Your task to perform on an android device: Check the weather Image 0: 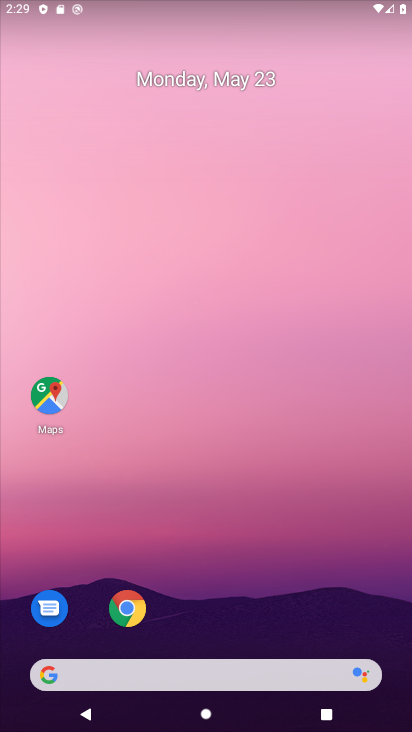
Step 0: drag from (249, 618) to (284, 316)
Your task to perform on an android device: Check the weather Image 1: 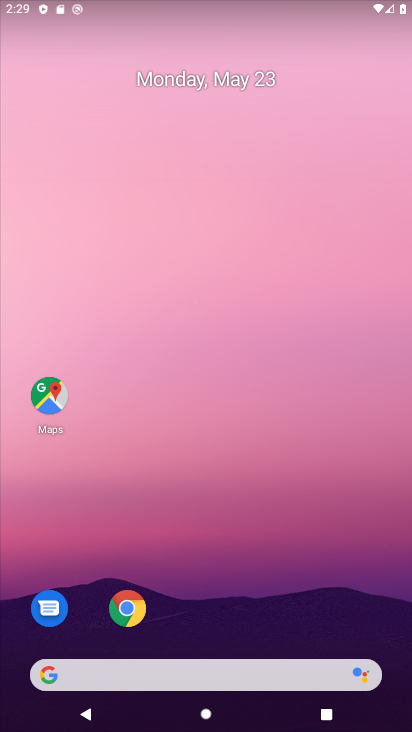
Step 1: click (124, 609)
Your task to perform on an android device: Check the weather Image 2: 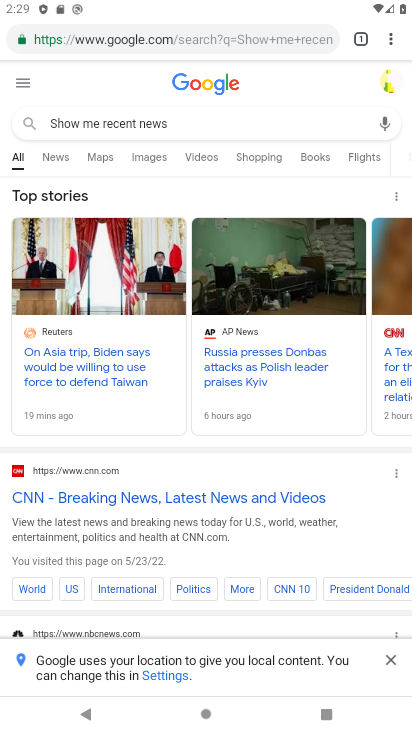
Step 2: click (388, 47)
Your task to perform on an android device: Check the weather Image 3: 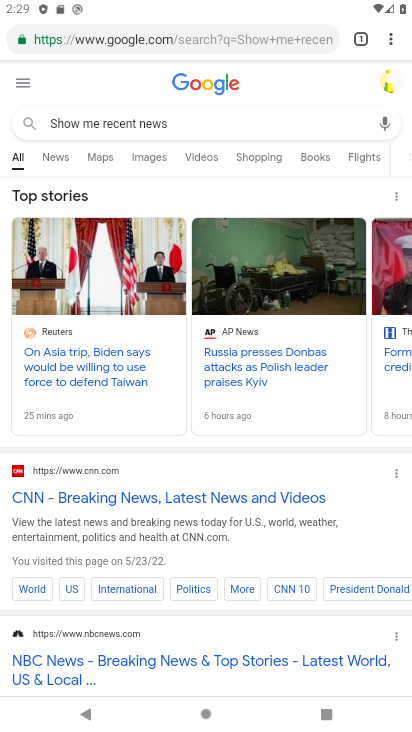
Step 3: click (387, 40)
Your task to perform on an android device: Check the weather Image 4: 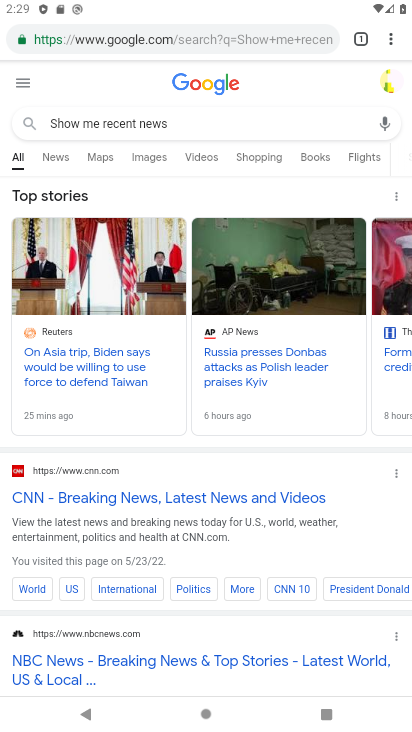
Step 4: click (385, 35)
Your task to perform on an android device: Check the weather Image 5: 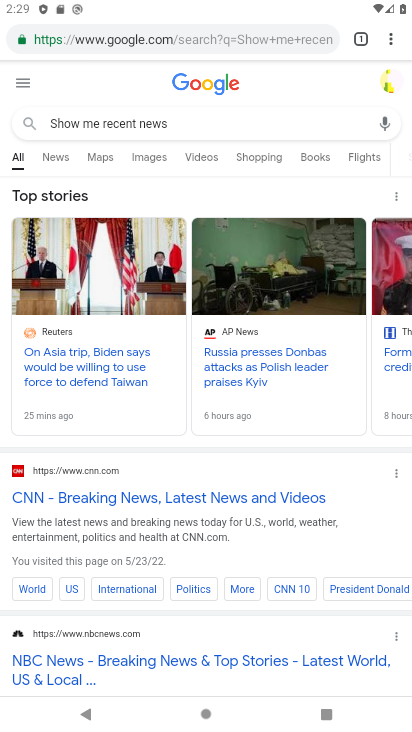
Step 5: click (385, 29)
Your task to perform on an android device: Check the weather Image 6: 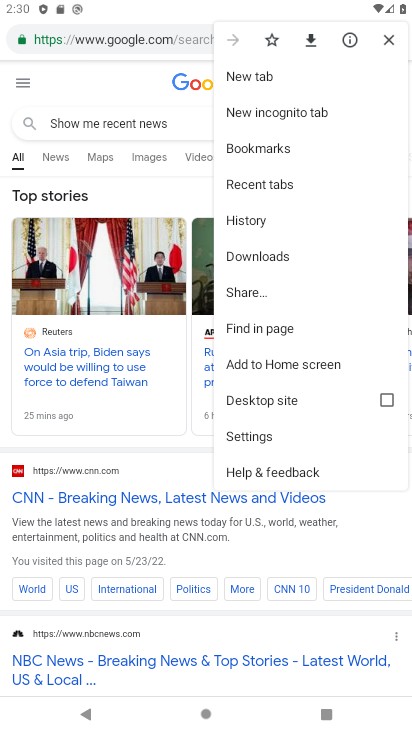
Step 6: click (297, 80)
Your task to perform on an android device: Check the weather Image 7: 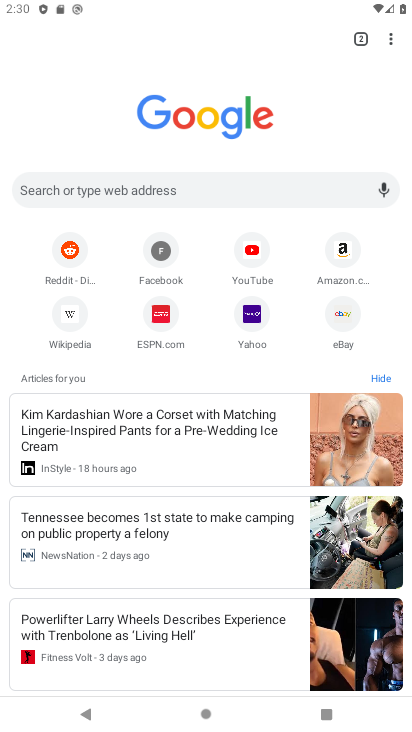
Step 7: click (193, 192)
Your task to perform on an android device: Check the weather Image 8: 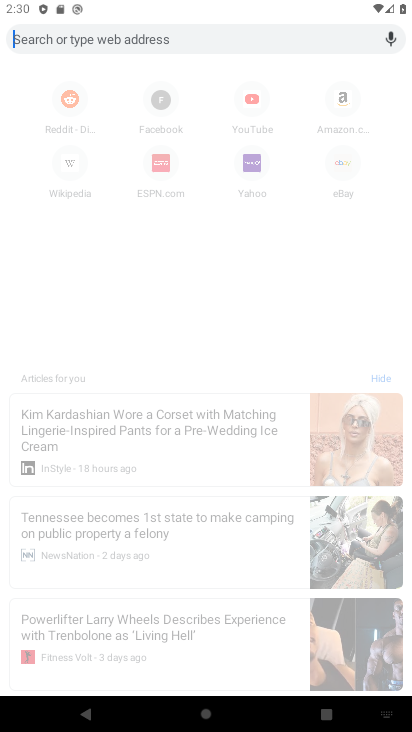
Step 8: type "Check the weather"
Your task to perform on an android device: Check the weather Image 9: 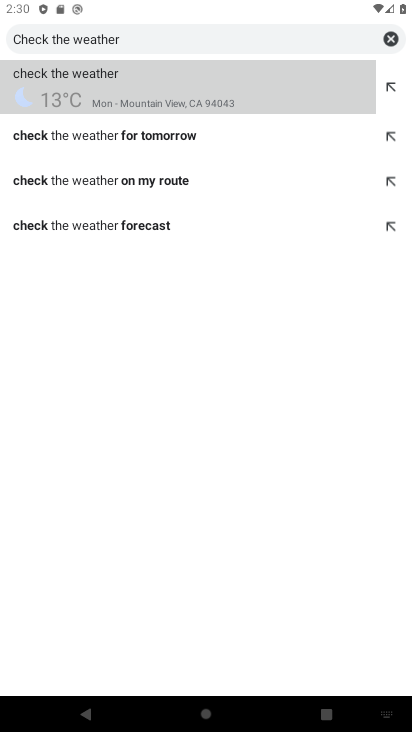
Step 9: click (152, 90)
Your task to perform on an android device: Check the weather Image 10: 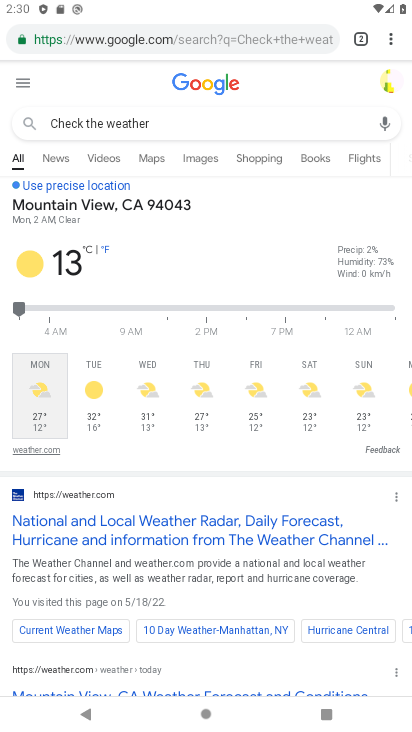
Step 10: task complete